Your task to perform on an android device: Open Maps and search for coffee Image 0: 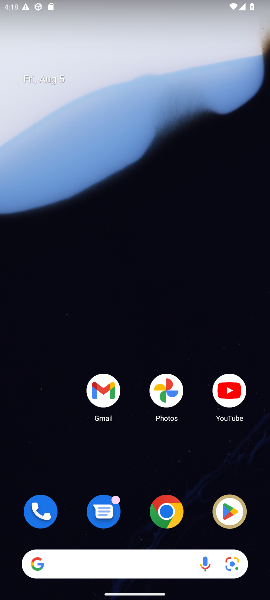
Step 0: click (107, 389)
Your task to perform on an android device: Open Maps and search for coffee Image 1: 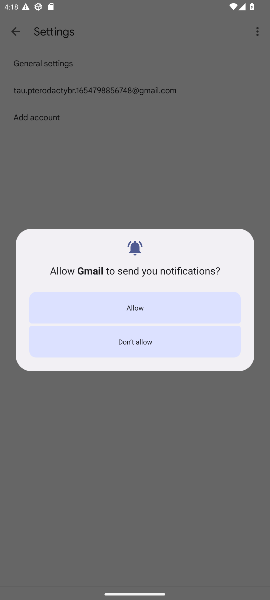
Step 1: press back button
Your task to perform on an android device: Open Maps and search for coffee Image 2: 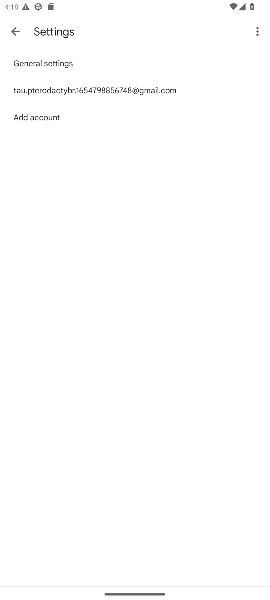
Step 2: press home button
Your task to perform on an android device: Open Maps and search for coffee Image 3: 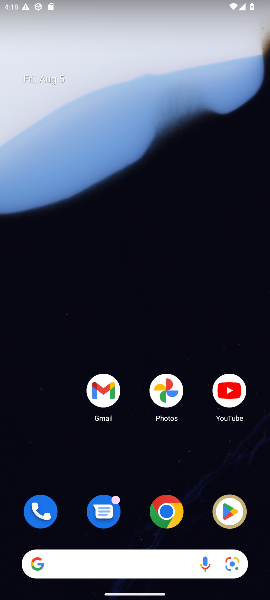
Step 3: drag from (137, 510) to (133, 77)
Your task to perform on an android device: Open Maps and search for coffee Image 4: 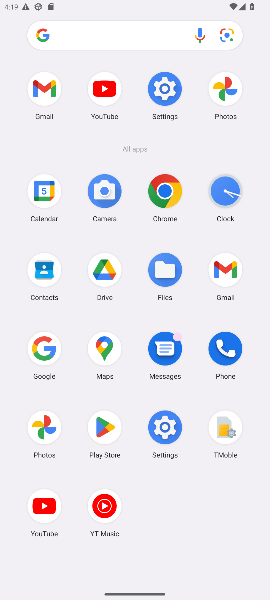
Step 4: click (103, 351)
Your task to perform on an android device: Open Maps and search for coffee Image 5: 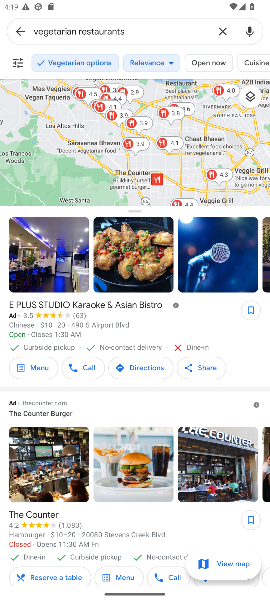
Step 5: click (218, 28)
Your task to perform on an android device: Open Maps and search for coffee Image 6: 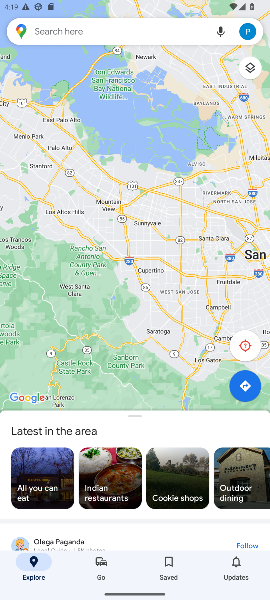
Step 6: click (102, 32)
Your task to perform on an android device: Open Maps and search for coffee Image 7: 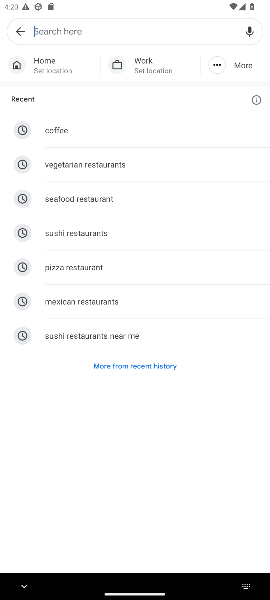
Step 7: click (56, 134)
Your task to perform on an android device: Open Maps and search for coffee Image 8: 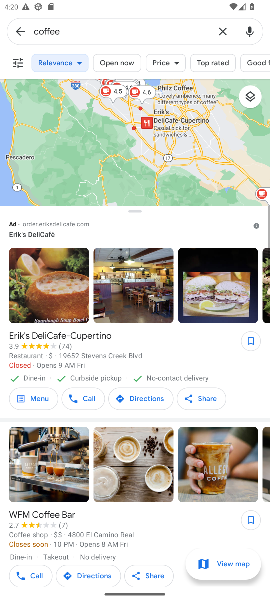
Step 8: task complete